Your task to perform on an android device: toggle translation in the chrome app Image 0: 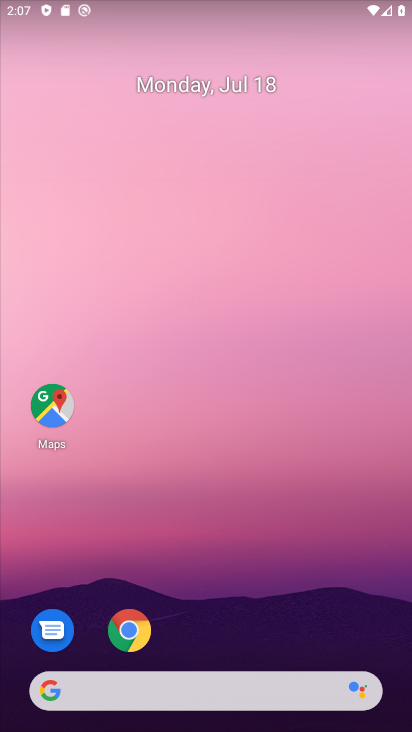
Step 0: drag from (233, 633) to (231, 8)
Your task to perform on an android device: toggle translation in the chrome app Image 1: 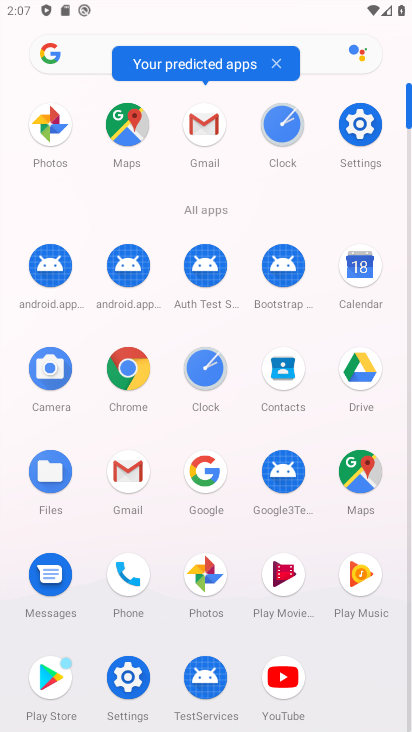
Step 1: click (134, 358)
Your task to perform on an android device: toggle translation in the chrome app Image 2: 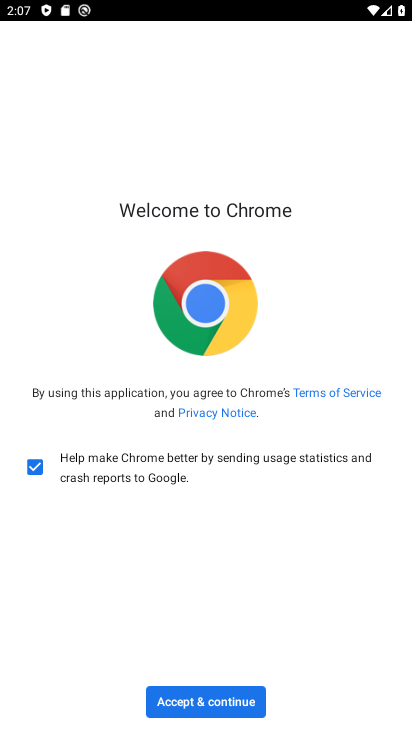
Step 2: click (209, 698)
Your task to perform on an android device: toggle translation in the chrome app Image 3: 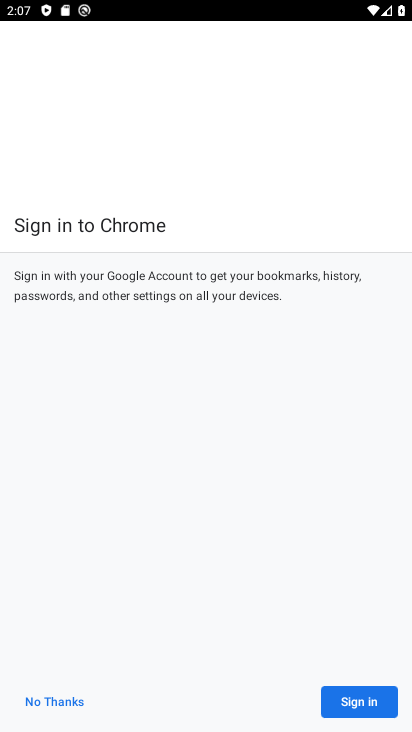
Step 3: click (351, 700)
Your task to perform on an android device: toggle translation in the chrome app Image 4: 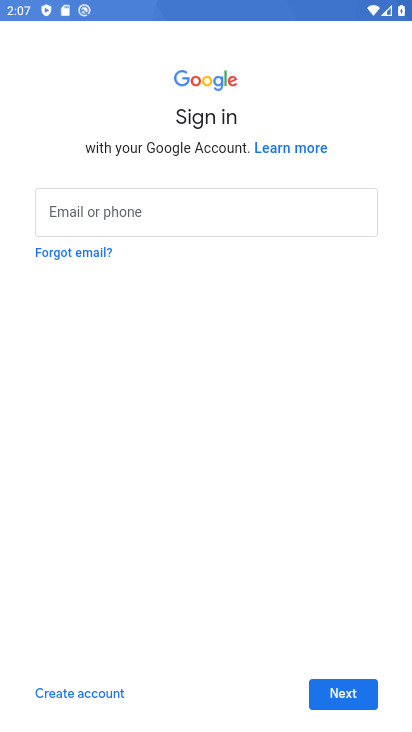
Step 4: click (364, 687)
Your task to perform on an android device: toggle translation in the chrome app Image 5: 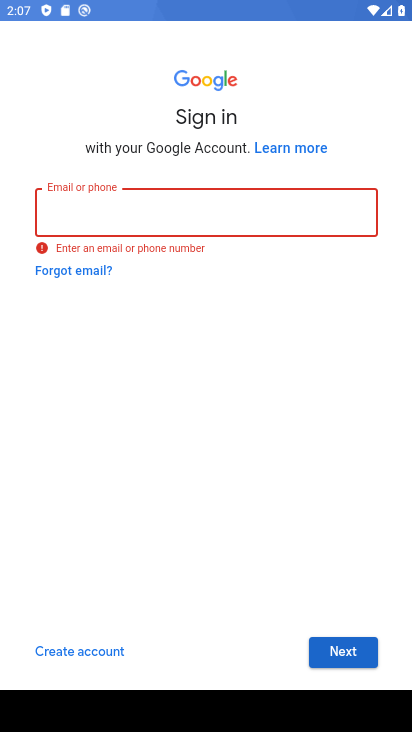
Step 5: click (330, 662)
Your task to perform on an android device: toggle translation in the chrome app Image 6: 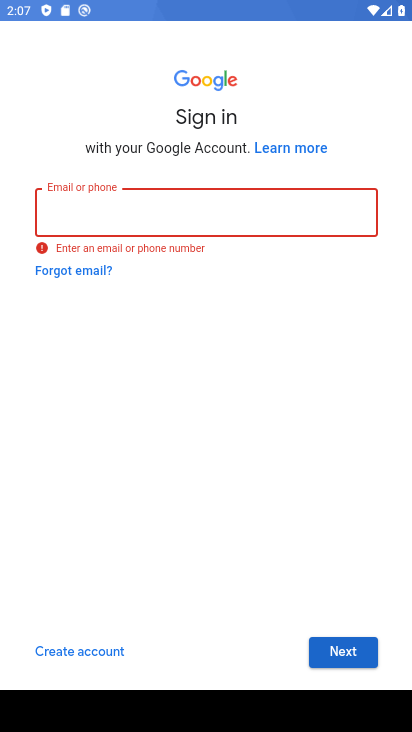
Step 6: press home button
Your task to perform on an android device: toggle translation in the chrome app Image 7: 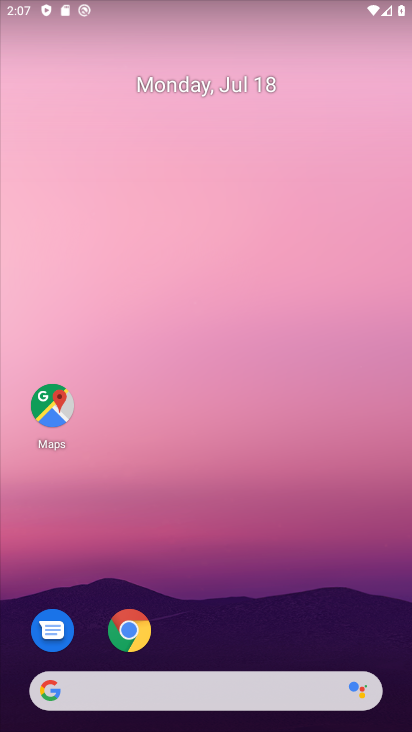
Step 7: drag from (253, 655) to (238, 42)
Your task to perform on an android device: toggle translation in the chrome app Image 8: 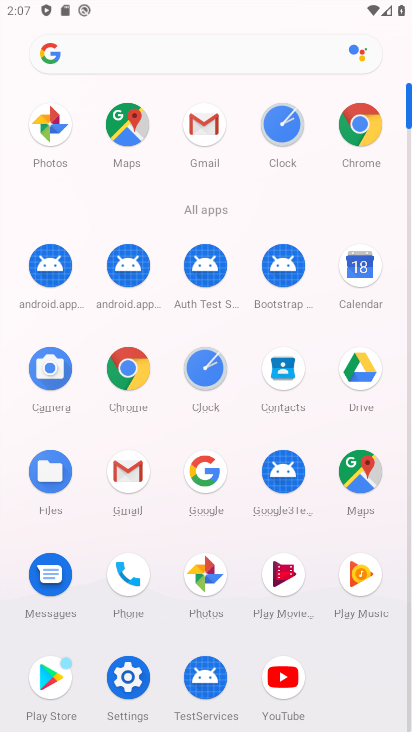
Step 8: click (381, 135)
Your task to perform on an android device: toggle translation in the chrome app Image 9: 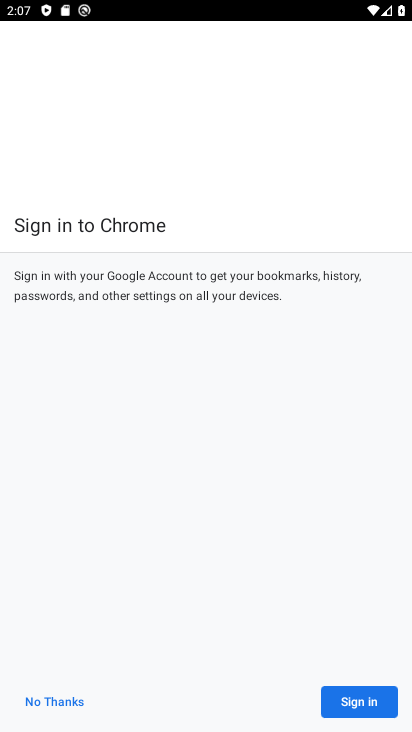
Step 9: click (48, 700)
Your task to perform on an android device: toggle translation in the chrome app Image 10: 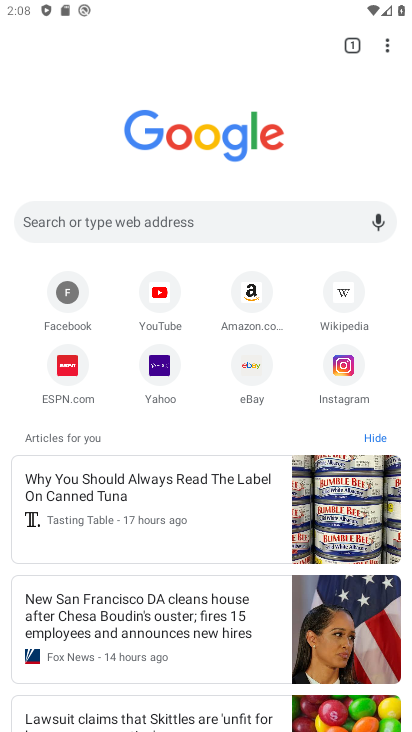
Step 10: drag from (391, 51) to (269, 399)
Your task to perform on an android device: toggle translation in the chrome app Image 11: 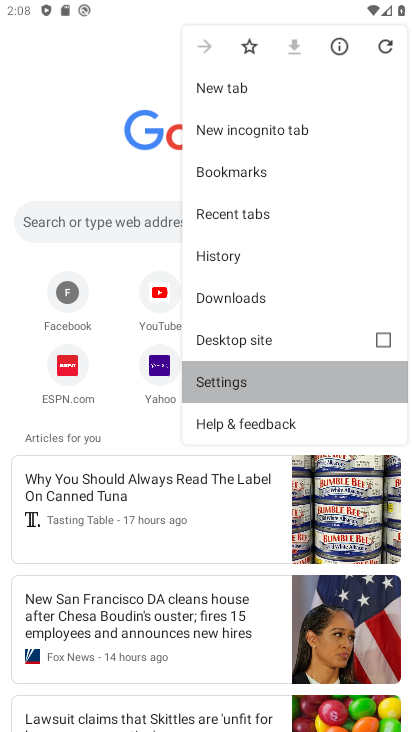
Step 11: click (250, 384)
Your task to perform on an android device: toggle translation in the chrome app Image 12: 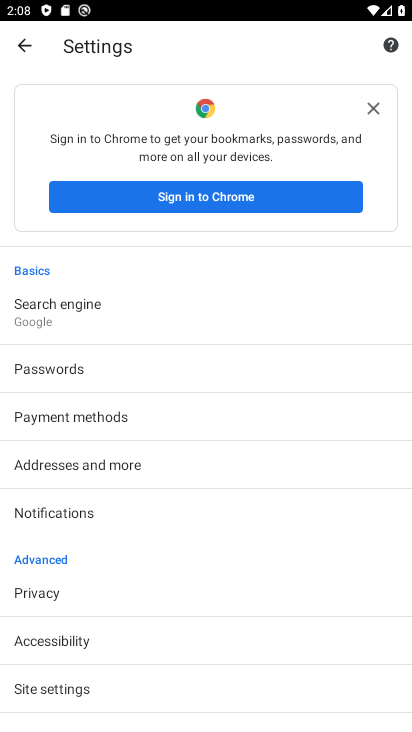
Step 12: drag from (191, 668) to (188, 231)
Your task to perform on an android device: toggle translation in the chrome app Image 13: 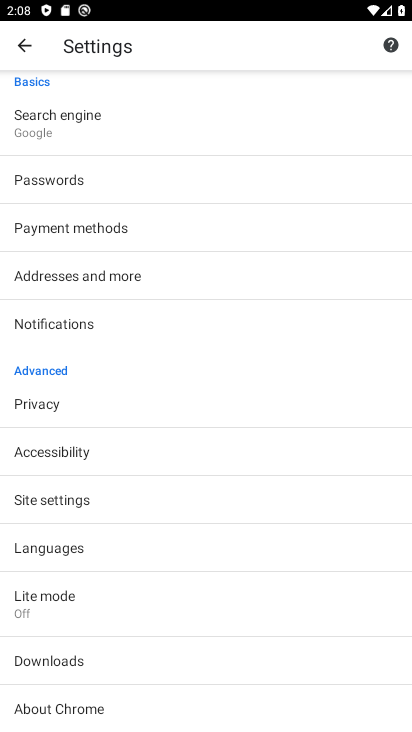
Step 13: click (48, 548)
Your task to perform on an android device: toggle translation in the chrome app Image 14: 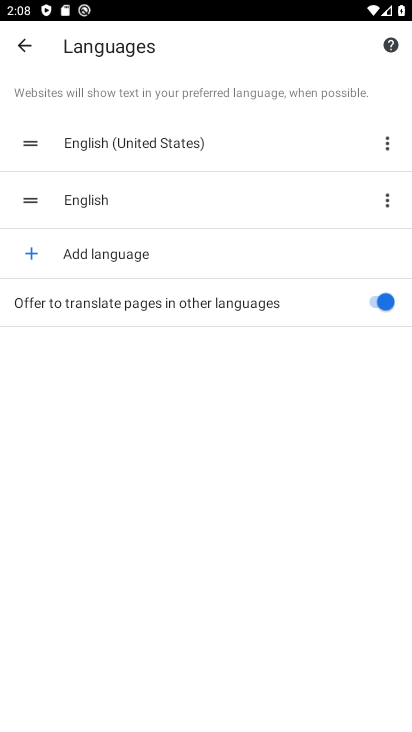
Step 14: click (390, 305)
Your task to perform on an android device: toggle translation in the chrome app Image 15: 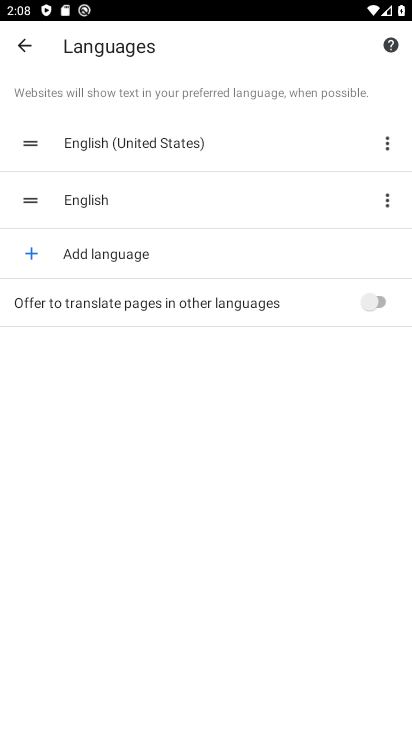
Step 15: task complete